Your task to perform on an android device: turn off data saver in the chrome app Image 0: 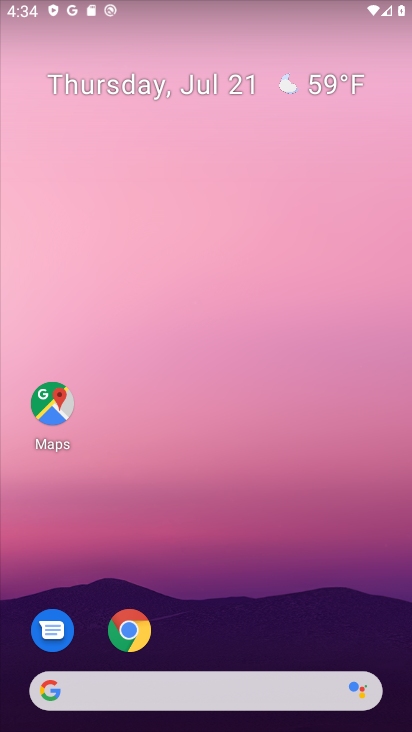
Step 0: drag from (240, 621) to (197, 140)
Your task to perform on an android device: turn off data saver in the chrome app Image 1: 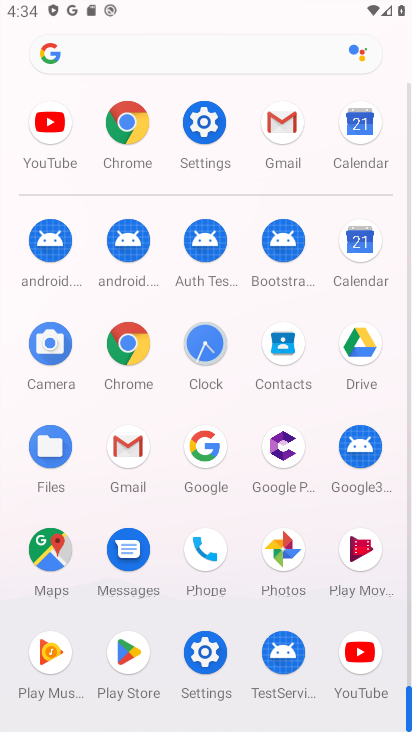
Step 1: click (118, 120)
Your task to perform on an android device: turn off data saver in the chrome app Image 2: 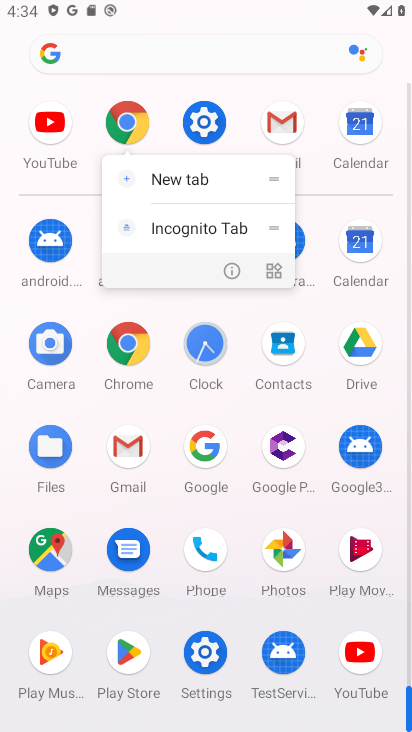
Step 2: click (127, 123)
Your task to perform on an android device: turn off data saver in the chrome app Image 3: 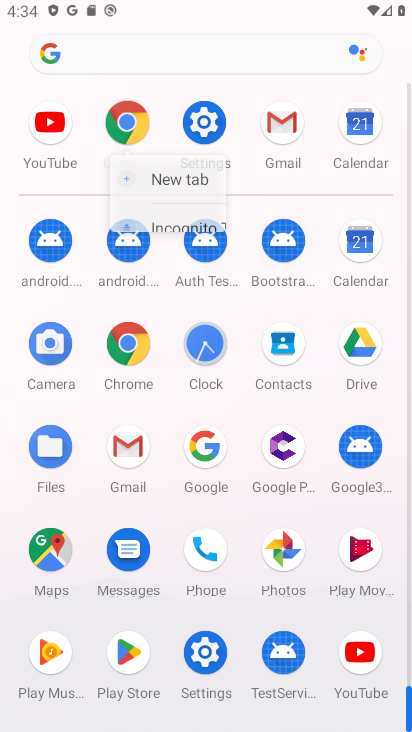
Step 3: click (127, 123)
Your task to perform on an android device: turn off data saver in the chrome app Image 4: 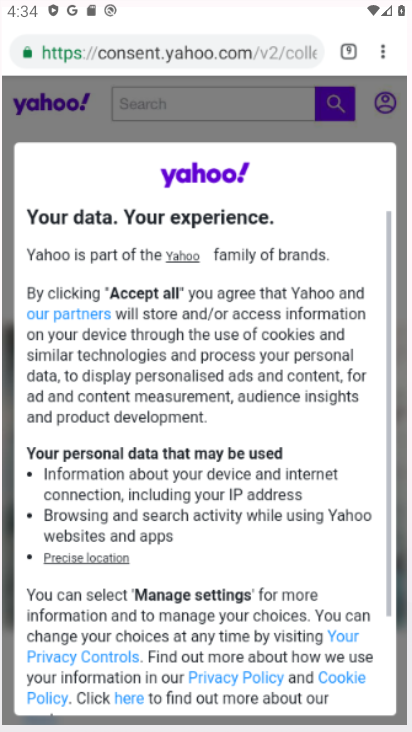
Step 4: click (127, 122)
Your task to perform on an android device: turn off data saver in the chrome app Image 5: 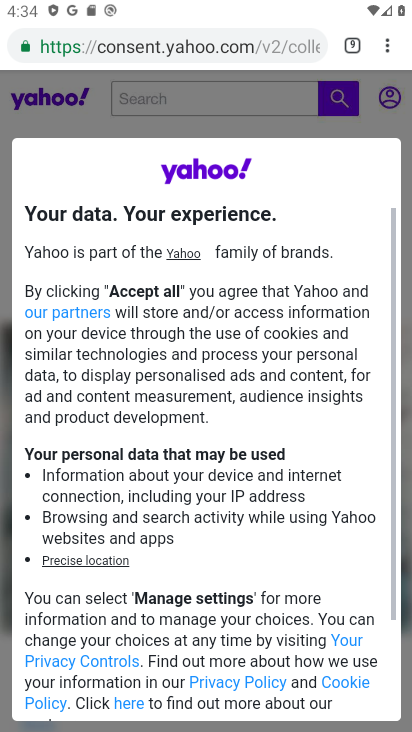
Step 5: drag from (381, 49) to (216, 544)
Your task to perform on an android device: turn off data saver in the chrome app Image 6: 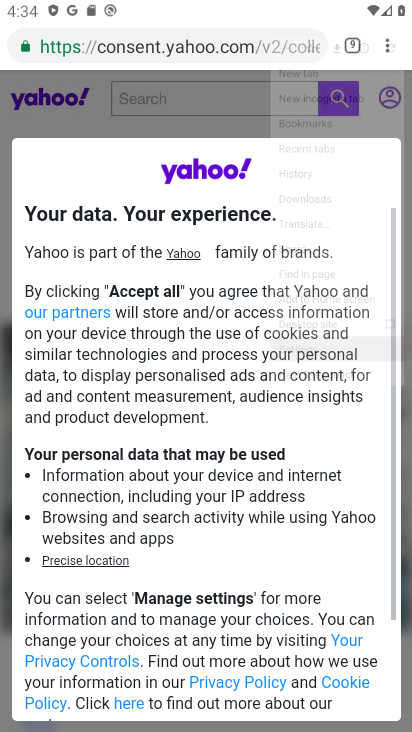
Step 6: click (217, 545)
Your task to perform on an android device: turn off data saver in the chrome app Image 7: 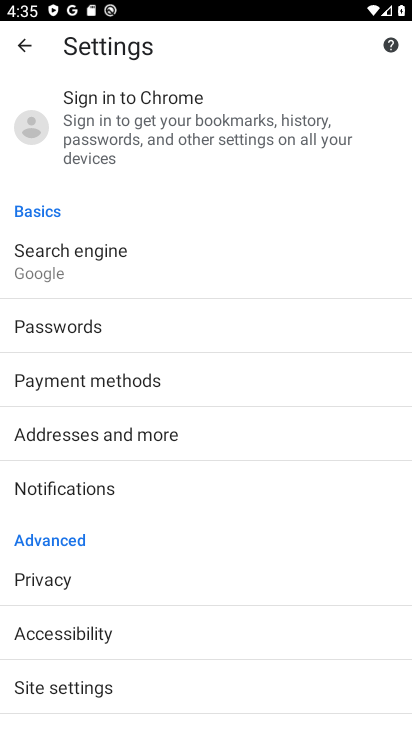
Step 7: drag from (78, 621) to (74, 432)
Your task to perform on an android device: turn off data saver in the chrome app Image 8: 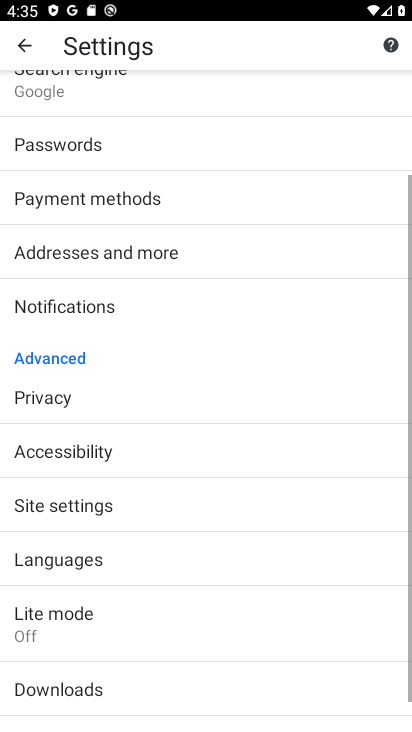
Step 8: drag from (74, 602) to (88, 470)
Your task to perform on an android device: turn off data saver in the chrome app Image 9: 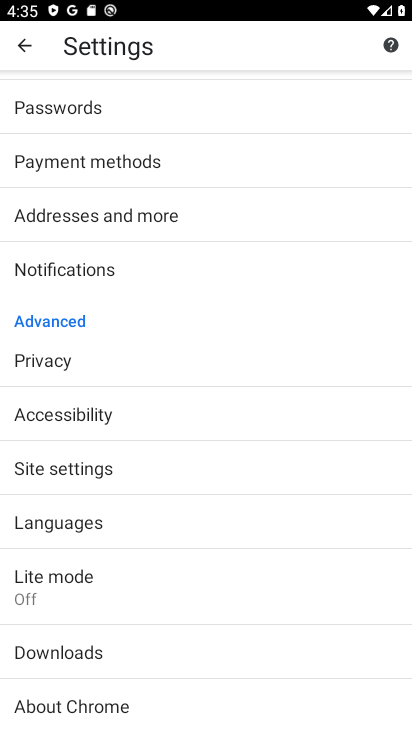
Step 9: click (60, 579)
Your task to perform on an android device: turn off data saver in the chrome app Image 10: 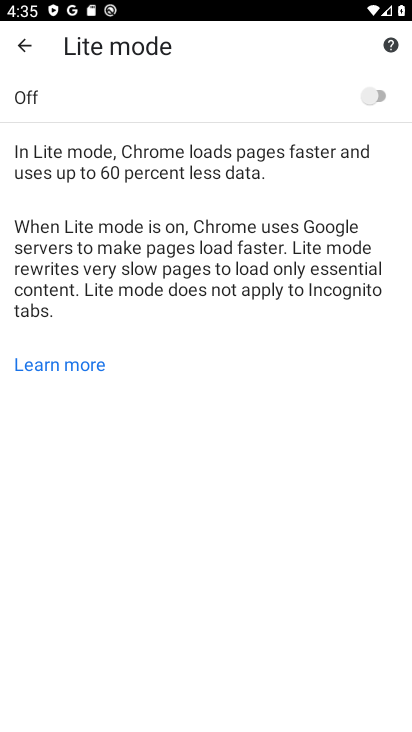
Step 10: task complete